Your task to perform on an android device: Open CNN.com Image 0: 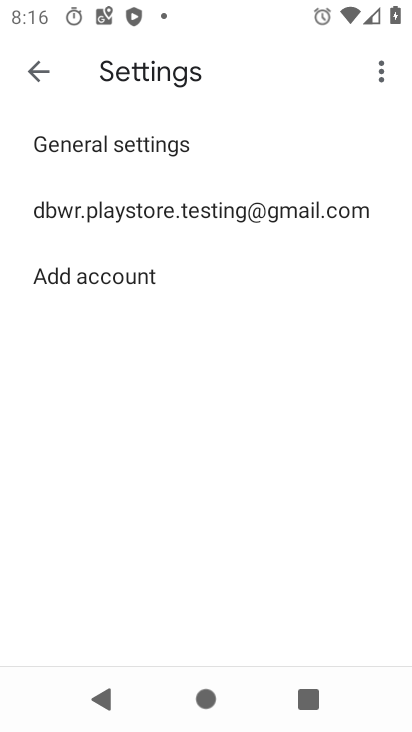
Step 0: press home button
Your task to perform on an android device: Open CNN.com Image 1: 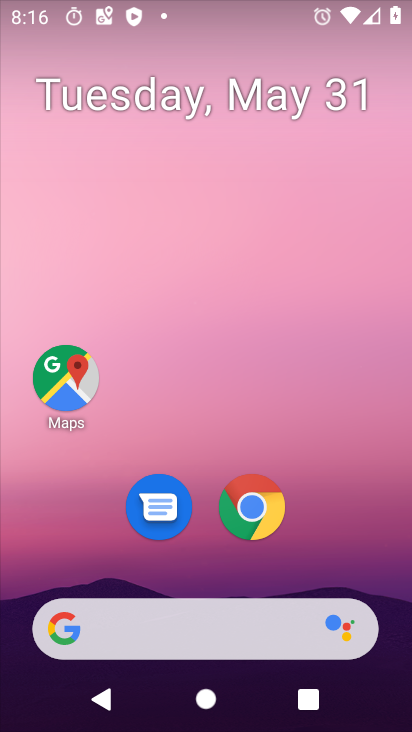
Step 1: click (258, 507)
Your task to perform on an android device: Open CNN.com Image 2: 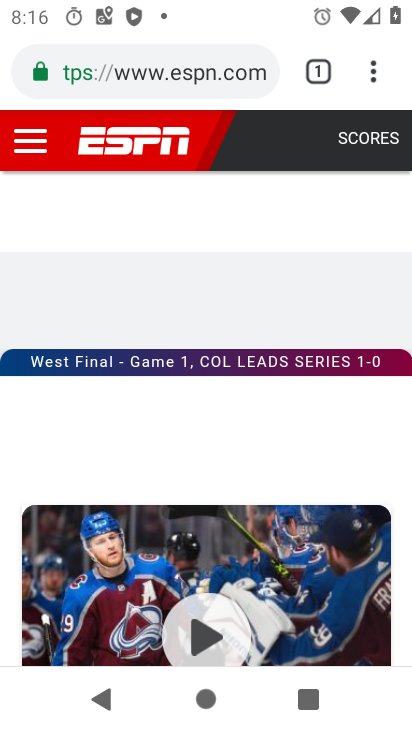
Step 2: click (114, 81)
Your task to perform on an android device: Open CNN.com Image 3: 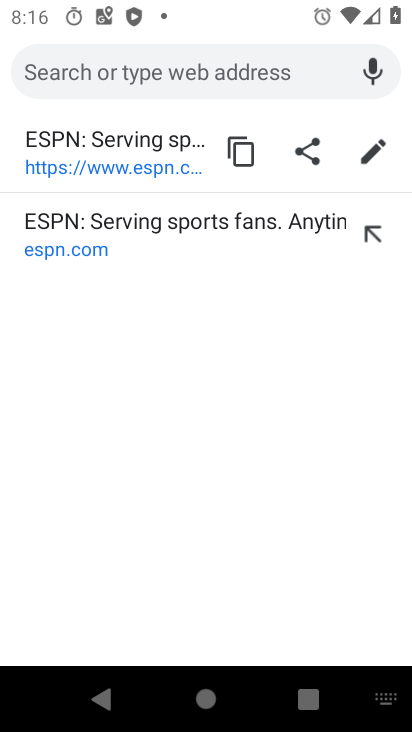
Step 3: type "cnn.com"
Your task to perform on an android device: Open CNN.com Image 4: 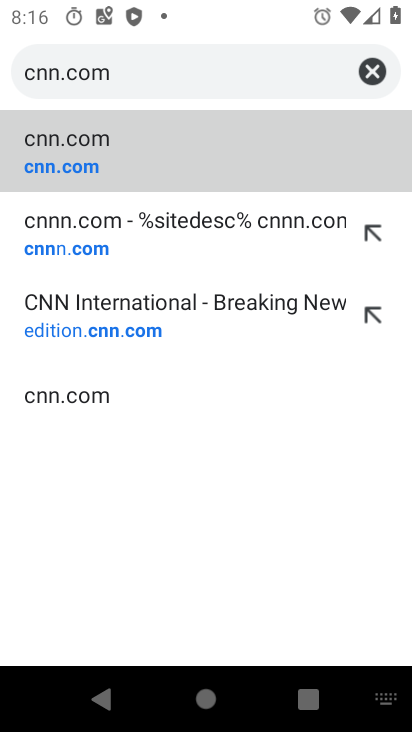
Step 4: click (70, 166)
Your task to perform on an android device: Open CNN.com Image 5: 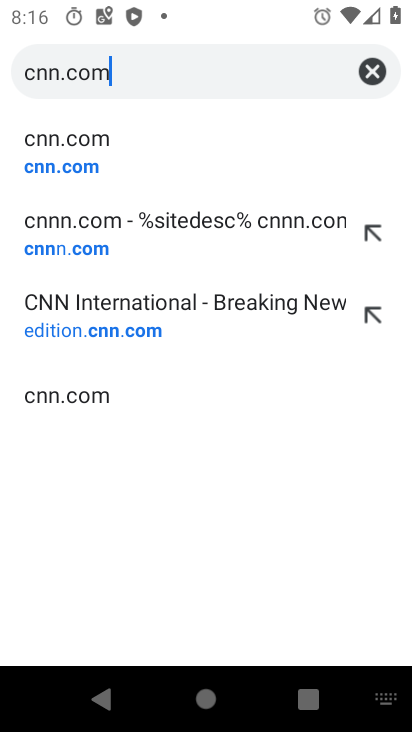
Step 5: click (56, 167)
Your task to perform on an android device: Open CNN.com Image 6: 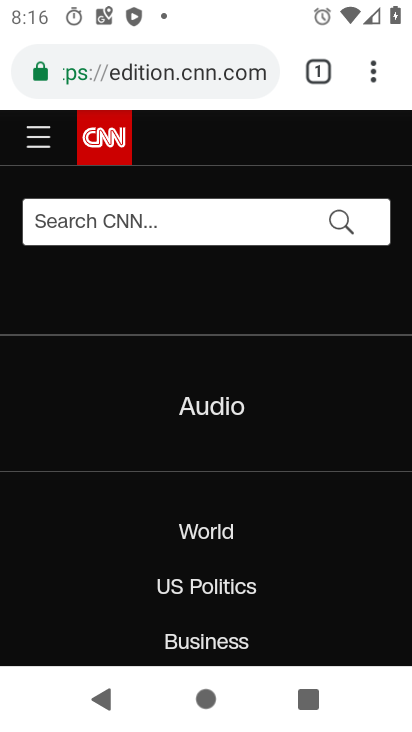
Step 6: task complete